Your task to perform on an android device: What's the weather? Image 0: 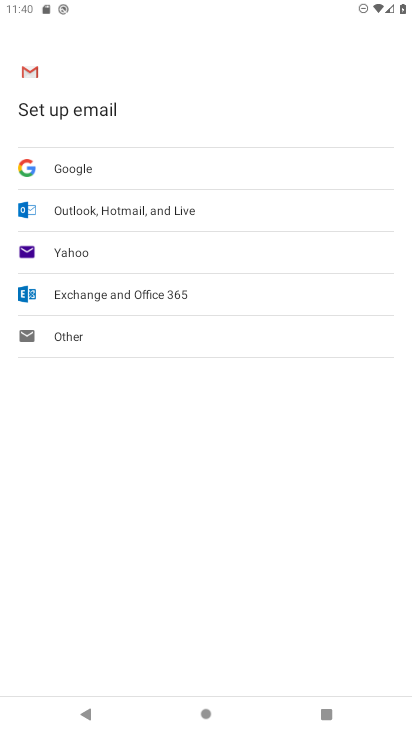
Step 0: press home button
Your task to perform on an android device: What's the weather? Image 1: 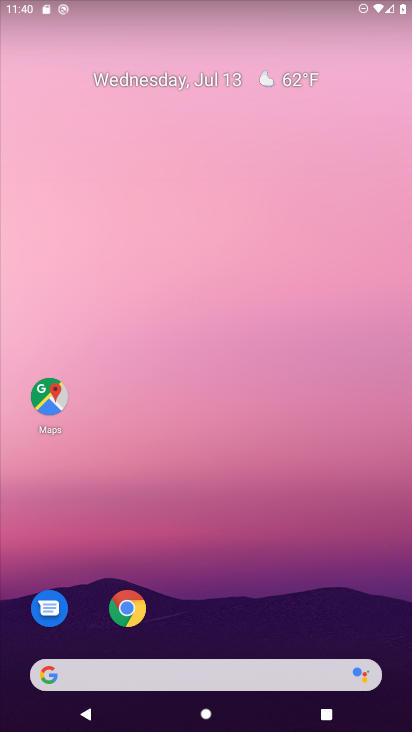
Step 1: drag from (249, 717) to (228, 117)
Your task to perform on an android device: What's the weather? Image 2: 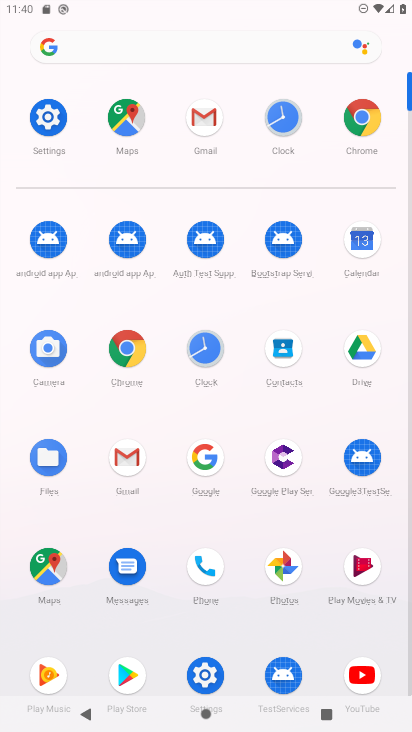
Step 2: click (210, 455)
Your task to perform on an android device: What's the weather? Image 3: 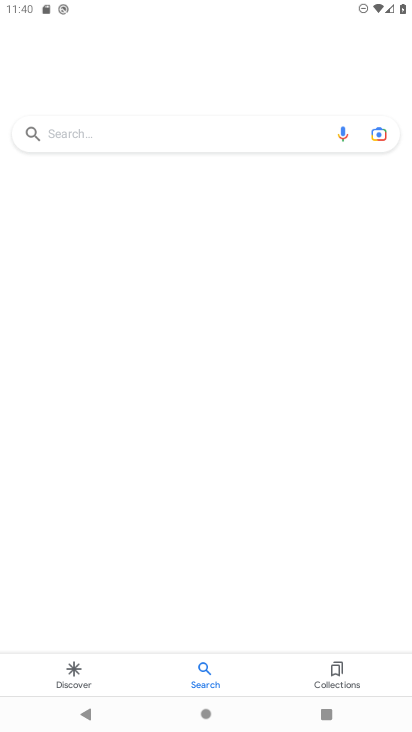
Step 3: click (176, 134)
Your task to perform on an android device: What's the weather? Image 4: 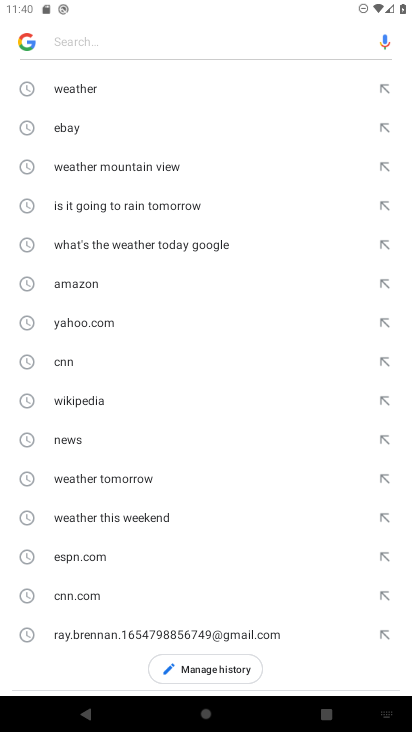
Step 4: click (70, 85)
Your task to perform on an android device: What's the weather? Image 5: 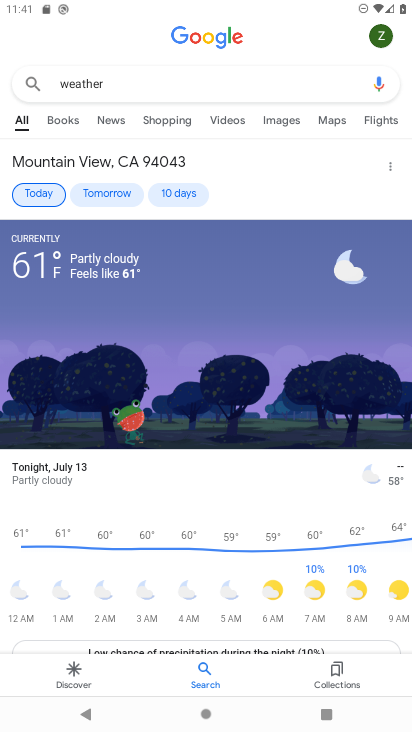
Step 5: task complete